Your task to perform on an android device: Go to Google maps Image 0: 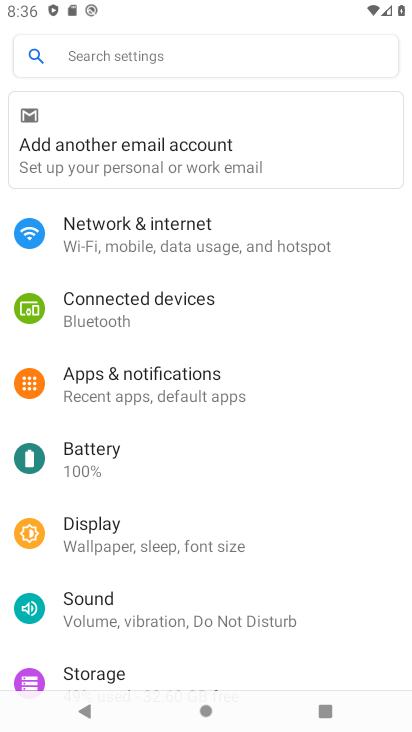
Step 0: press home button
Your task to perform on an android device: Go to Google maps Image 1: 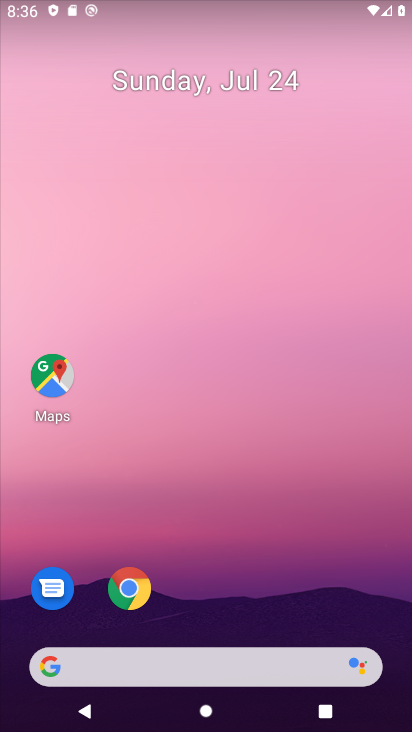
Step 1: click (53, 375)
Your task to perform on an android device: Go to Google maps Image 2: 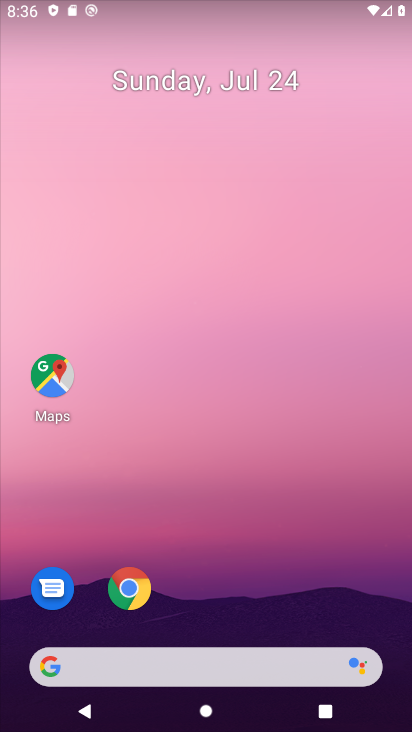
Step 2: click (53, 375)
Your task to perform on an android device: Go to Google maps Image 3: 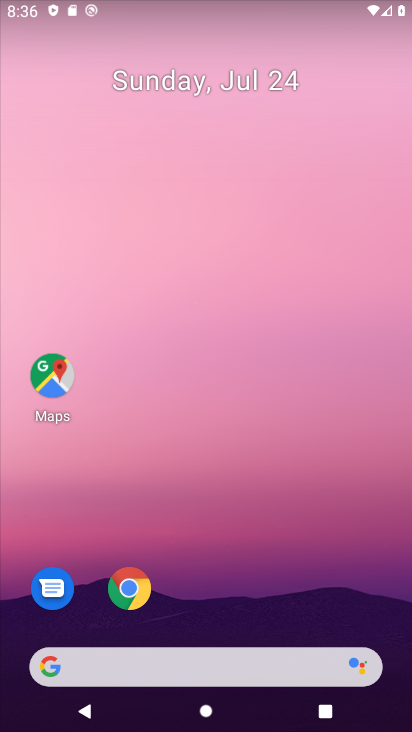
Step 3: click (53, 375)
Your task to perform on an android device: Go to Google maps Image 4: 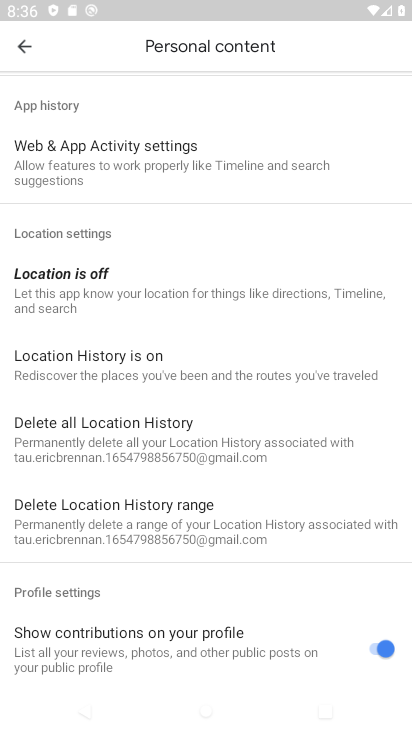
Step 4: click (27, 37)
Your task to perform on an android device: Go to Google maps Image 5: 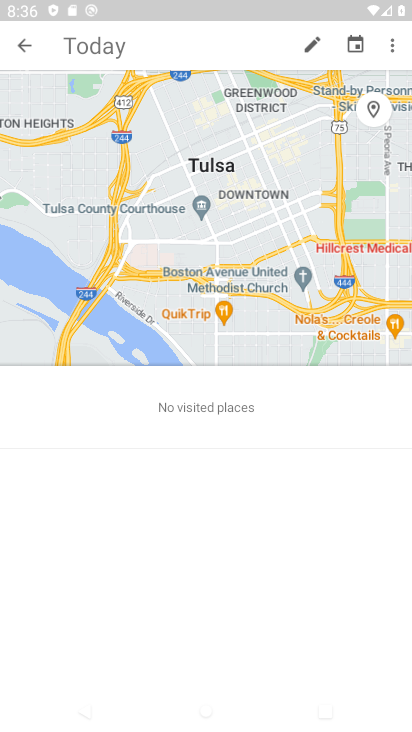
Step 5: click (18, 49)
Your task to perform on an android device: Go to Google maps Image 6: 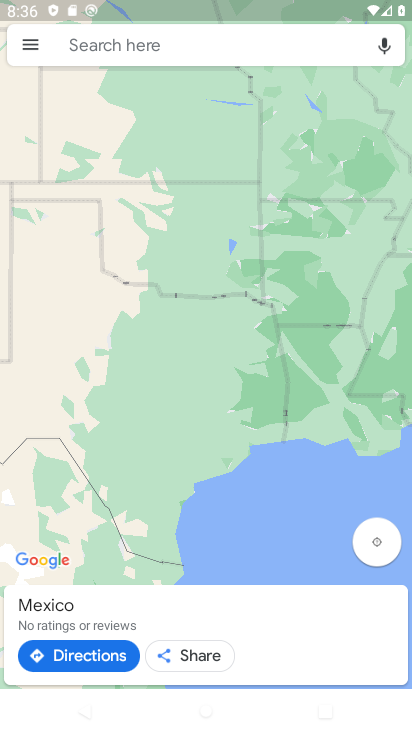
Step 6: task complete